Your task to perform on an android device: Clear all items from cart on bestbuy. Search for logitech g933 on bestbuy, select the first entry, and add it to the cart. Image 0: 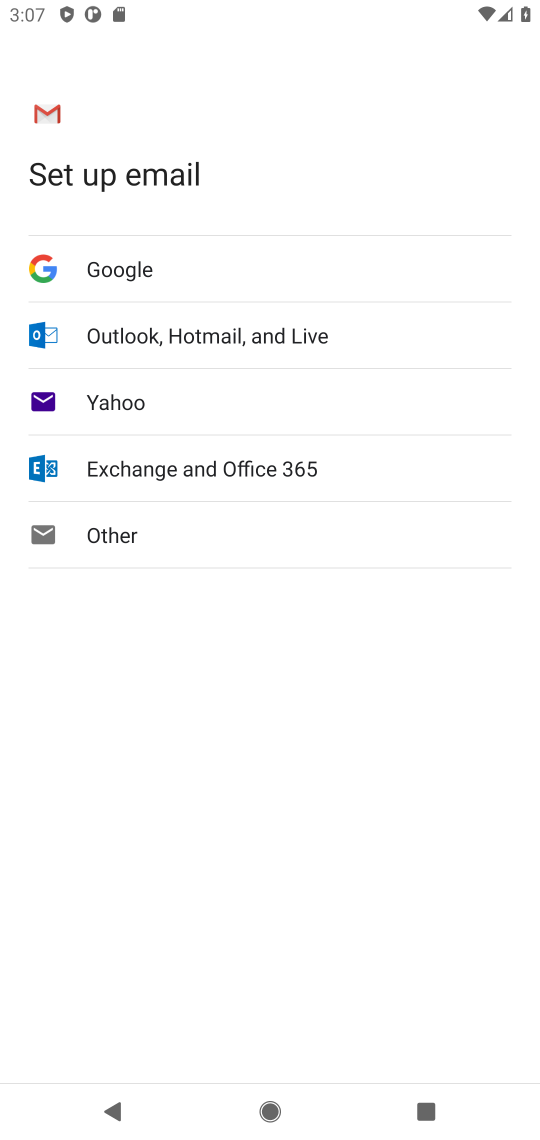
Step 0: press home button
Your task to perform on an android device: Clear all items from cart on bestbuy. Search for logitech g933 on bestbuy, select the first entry, and add it to the cart. Image 1: 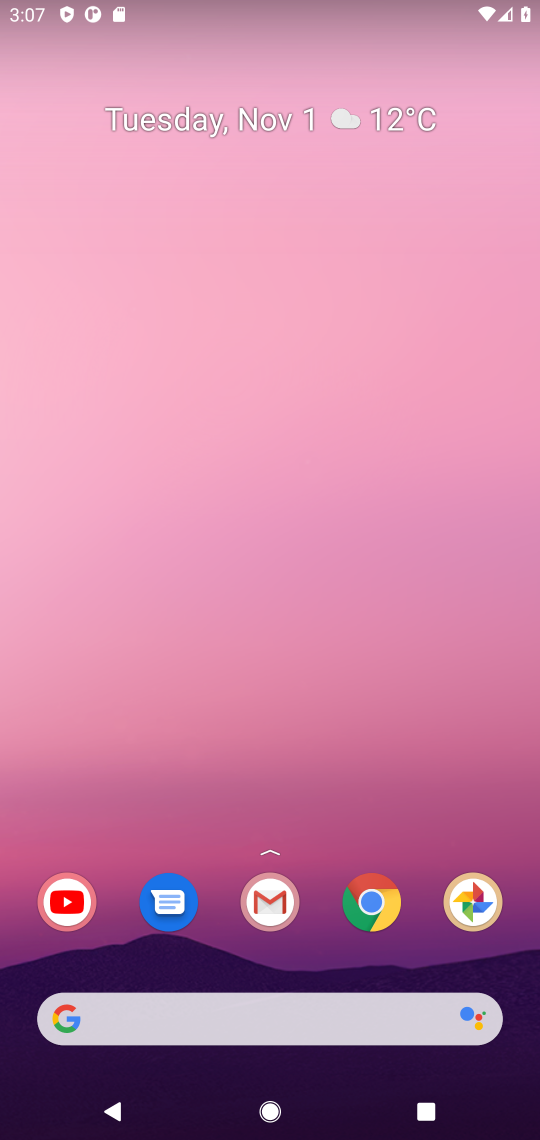
Step 1: drag from (238, 952) to (305, 108)
Your task to perform on an android device: Clear all items from cart on bestbuy. Search for logitech g933 on bestbuy, select the first entry, and add it to the cart. Image 2: 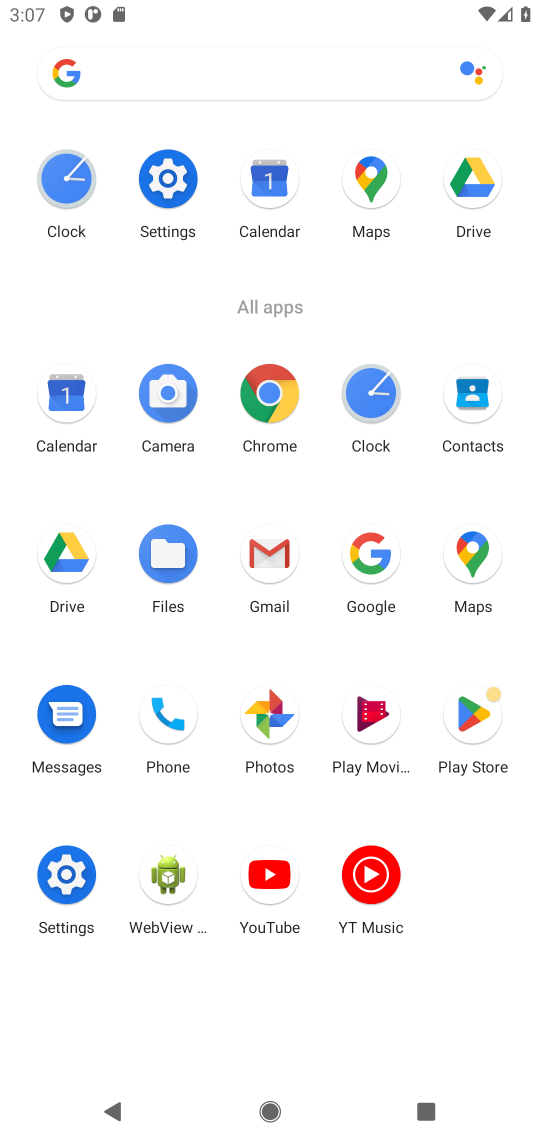
Step 2: click (373, 536)
Your task to perform on an android device: Clear all items from cart on bestbuy. Search for logitech g933 on bestbuy, select the first entry, and add it to the cart. Image 3: 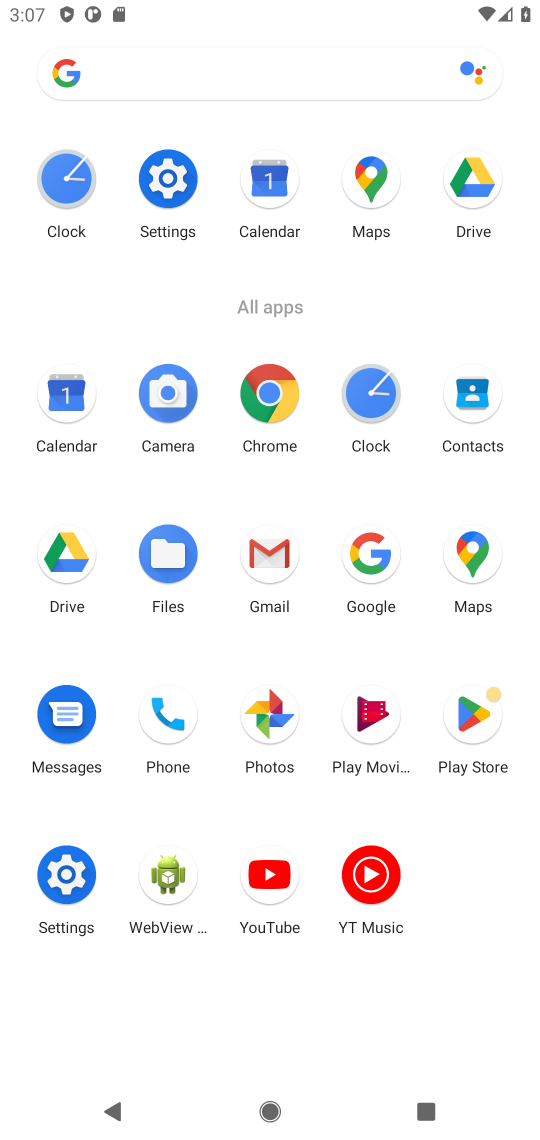
Step 3: click (363, 561)
Your task to perform on an android device: Clear all items from cart on bestbuy. Search for logitech g933 on bestbuy, select the first entry, and add it to the cart. Image 4: 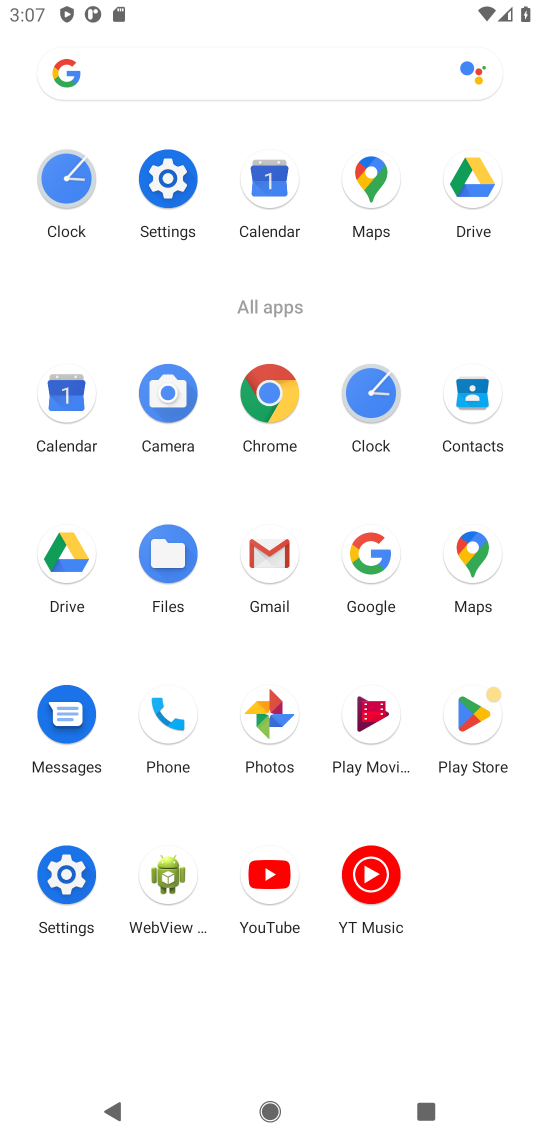
Step 4: click (364, 542)
Your task to perform on an android device: Clear all items from cart on bestbuy. Search for logitech g933 on bestbuy, select the first entry, and add it to the cart. Image 5: 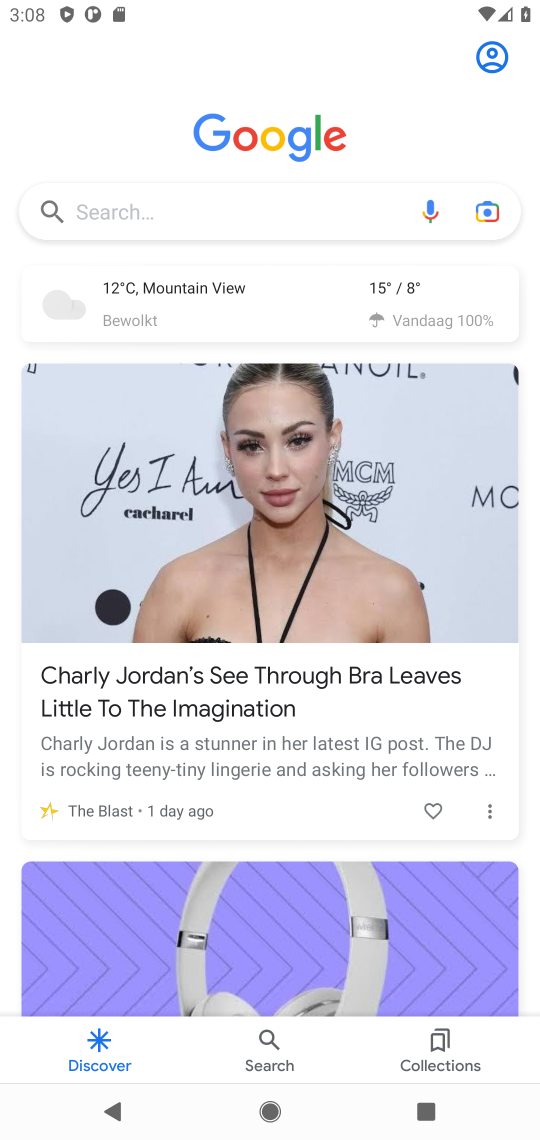
Step 5: click (276, 208)
Your task to perform on an android device: Clear all items from cart on bestbuy. Search for logitech g933 on bestbuy, select the first entry, and add it to the cart. Image 6: 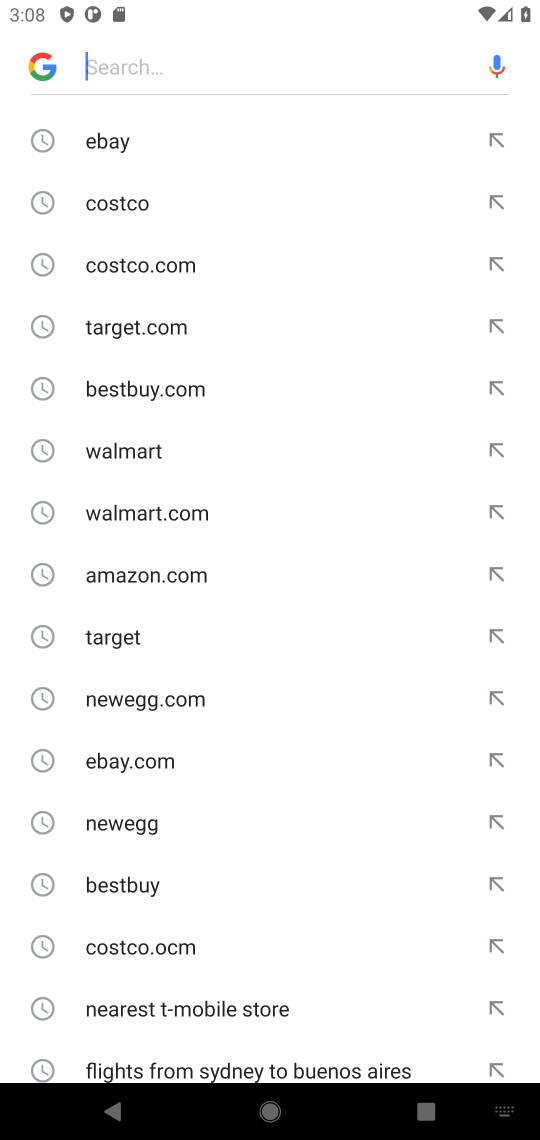
Step 6: click (125, 883)
Your task to perform on an android device: Clear all items from cart on bestbuy. Search for logitech g933 on bestbuy, select the first entry, and add it to the cart. Image 7: 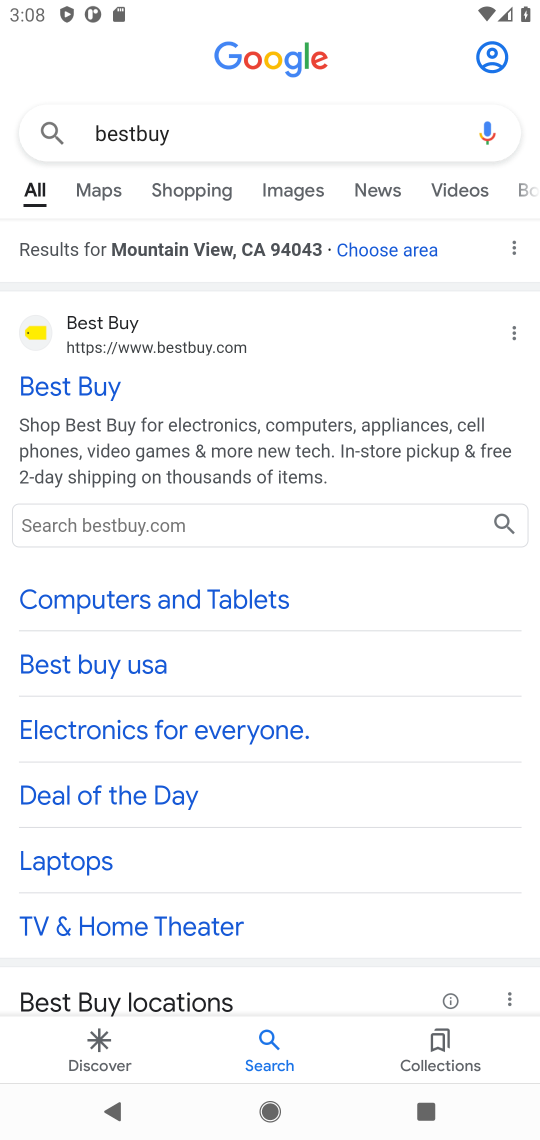
Step 7: click (56, 385)
Your task to perform on an android device: Clear all items from cart on bestbuy. Search for logitech g933 on bestbuy, select the first entry, and add it to the cart. Image 8: 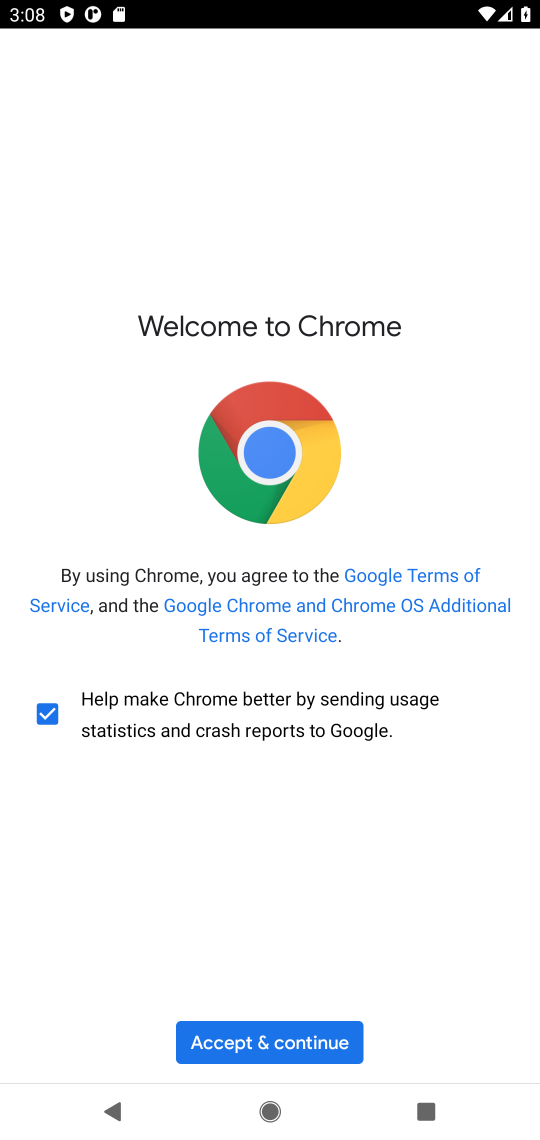
Step 8: click (234, 1032)
Your task to perform on an android device: Clear all items from cart on bestbuy. Search for logitech g933 on bestbuy, select the first entry, and add it to the cart. Image 9: 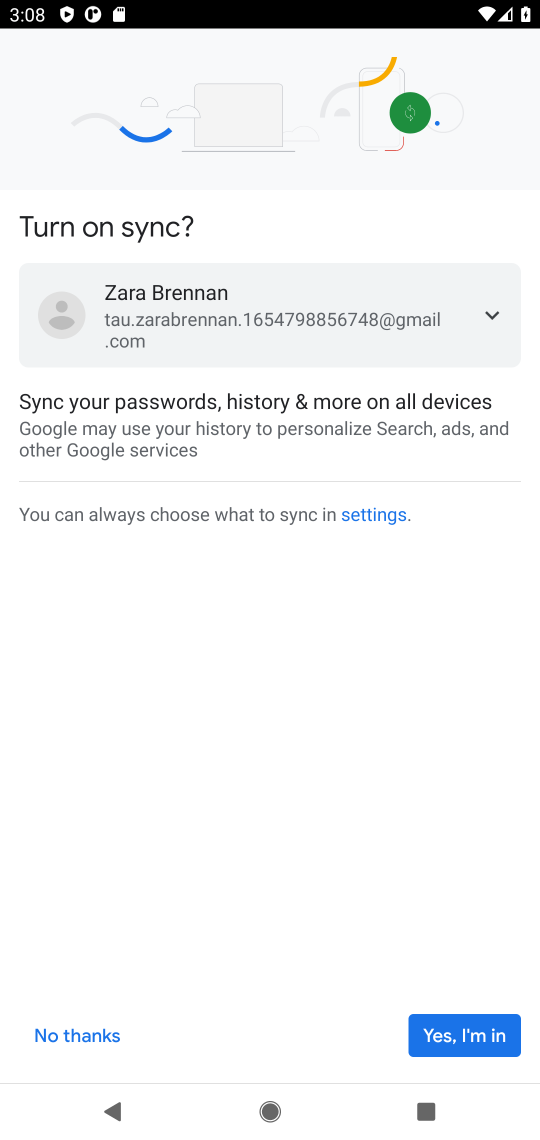
Step 9: click (459, 1043)
Your task to perform on an android device: Clear all items from cart on bestbuy. Search for logitech g933 on bestbuy, select the first entry, and add it to the cart. Image 10: 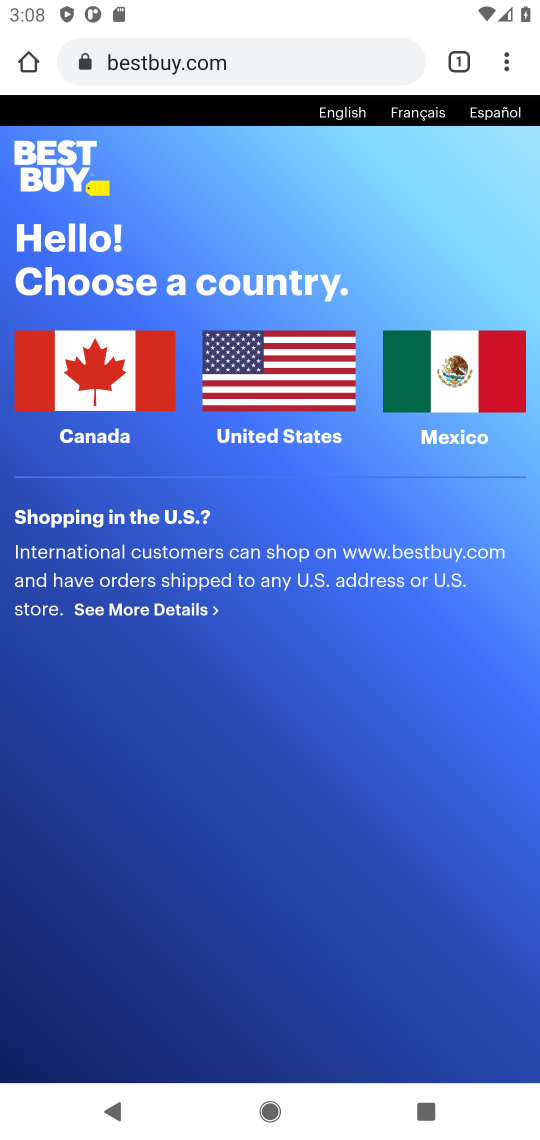
Step 10: click (432, 391)
Your task to perform on an android device: Clear all items from cart on bestbuy. Search for logitech g933 on bestbuy, select the first entry, and add it to the cart. Image 11: 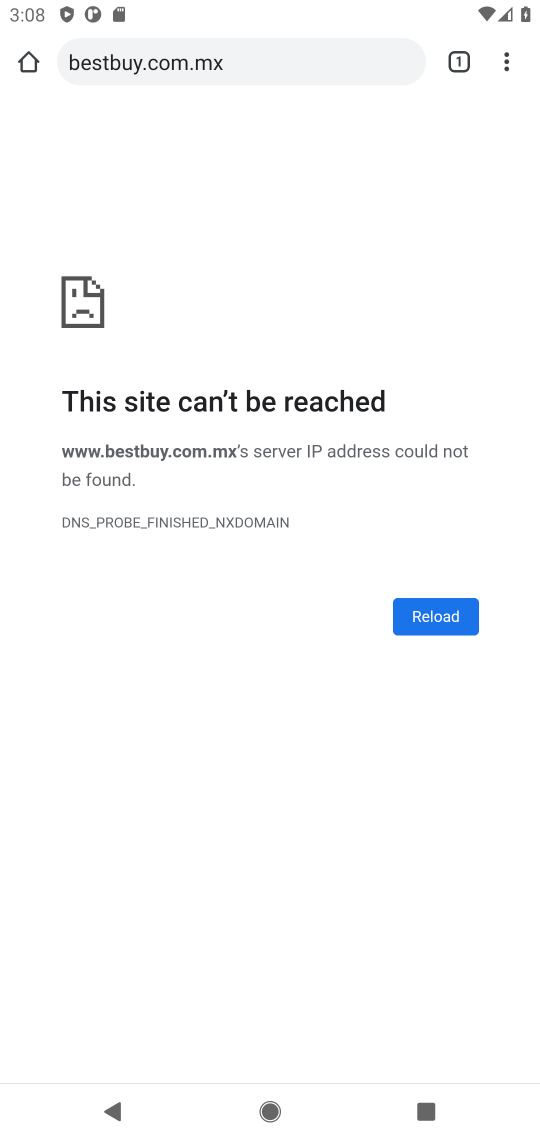
Step 11: click (411, 622)
Your task to perform on an android device: Clear all items from cart on bestbuy. Search for logitech g933 on bestbuy, select the first entry, and add it to the cart. Image 12: 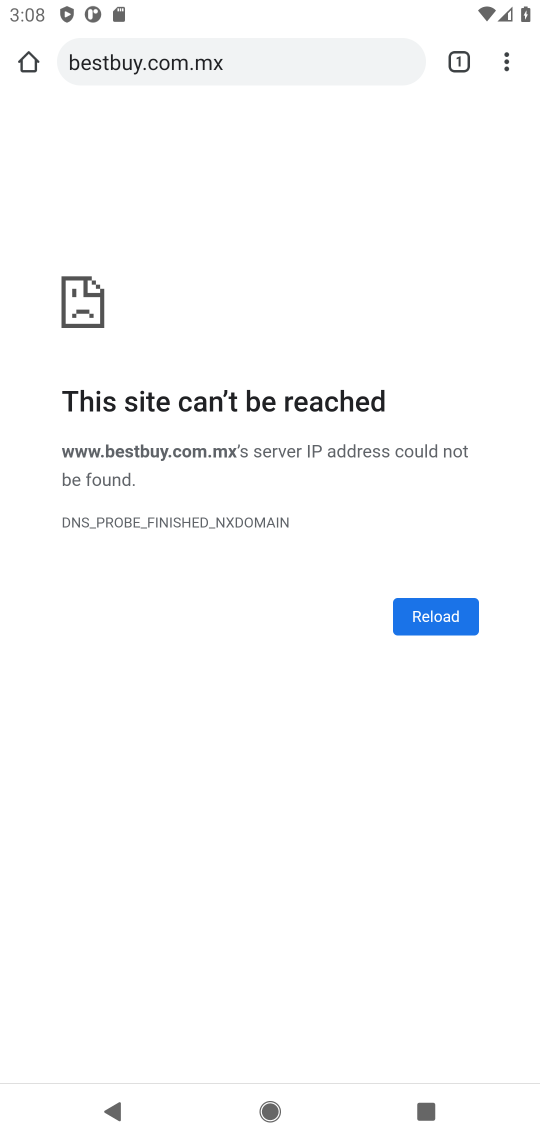
Step 12: task complete